Your task to perform on an android device: Is it going to rain today? Image 0: 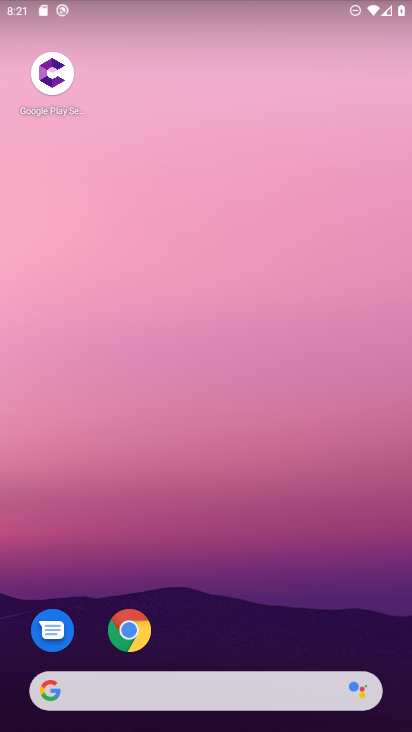
Step 0: click (132, 619)
Your task to perform on an android device: Is it going to rain today? Image 1: 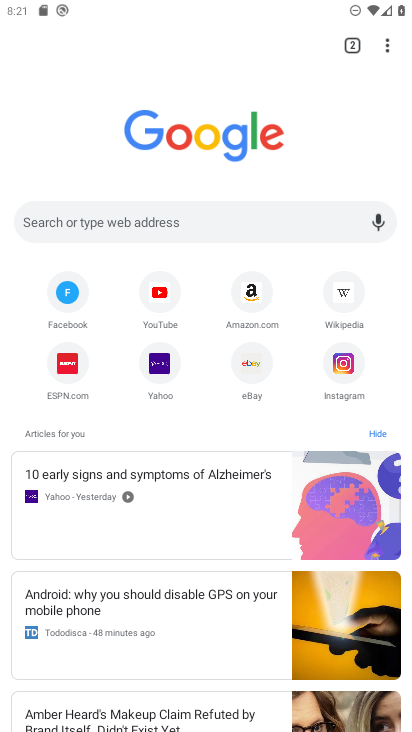
Step 1: click (248, 208)
Your task to perform on an android device: Is it going to rain today? Image 2: 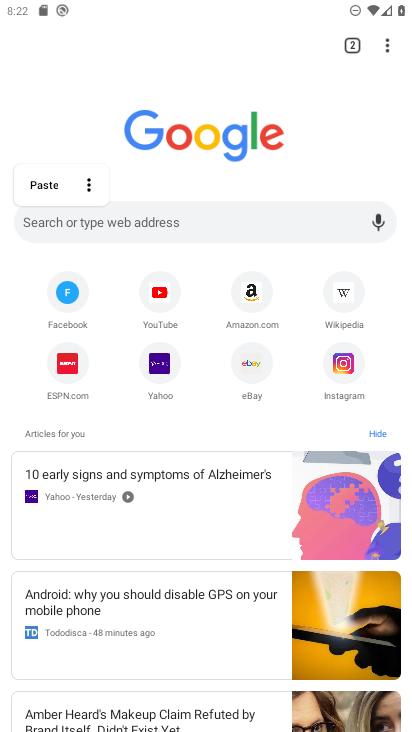
Step 2: type "Is it going to rain today?"
Your task to perform on an android device: Is it going to rain today? Image 3: 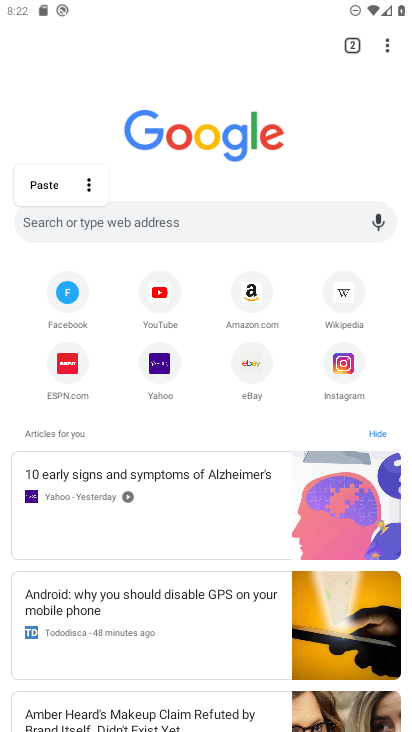
Step 3: click (275, 214)
Your task to perform on an android device: Is it going to rain today? Image 4: 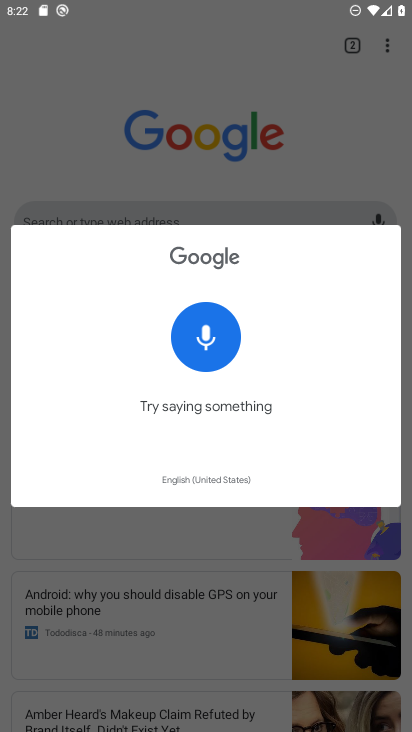
Step 4: click (48, 122)
Your task to perform on an android device: Is it going to rain today? Image 5: 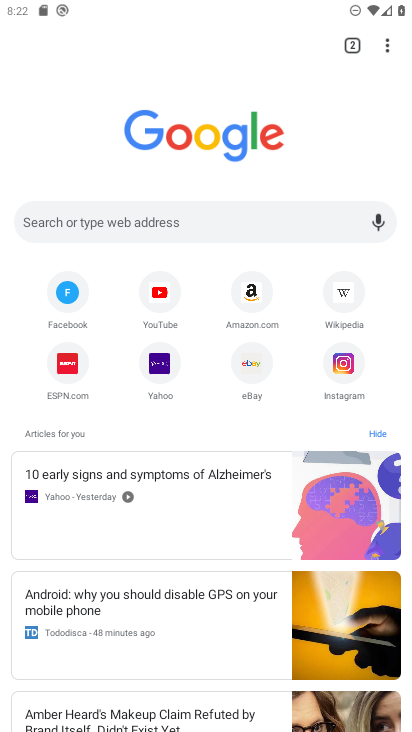
Step 5: click (191, 221)
Your task to perform on an android device: Is it going to rain today? Image 6: 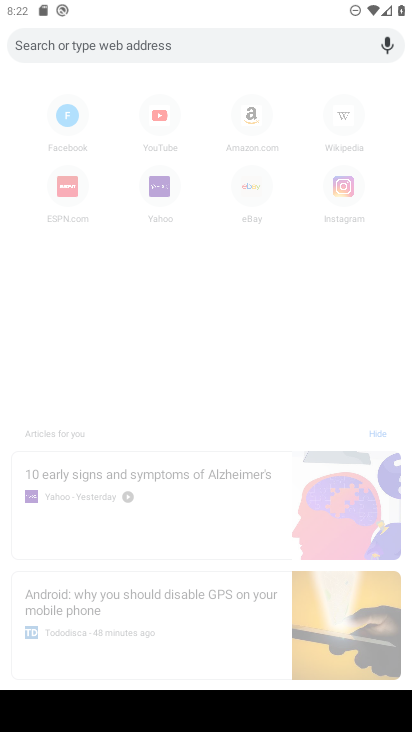
Step 6: type "Is it going to rain today?"
Your task to perform on an android device: Is it going to rain today? Image 7: 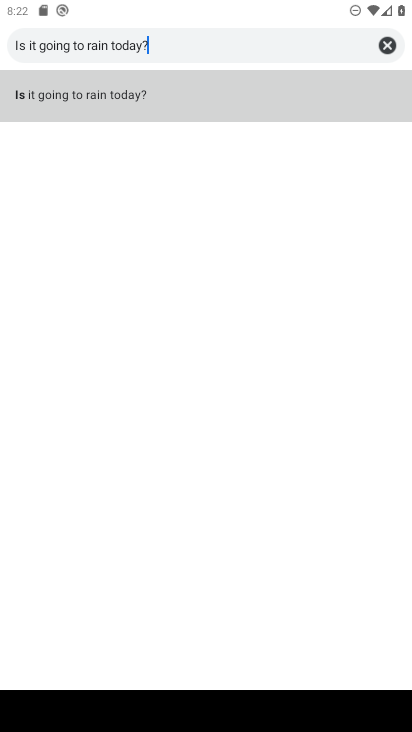
Step 7: click (127, 95)
Your task to perform on an android device: Is it going to rain today? Image 8: 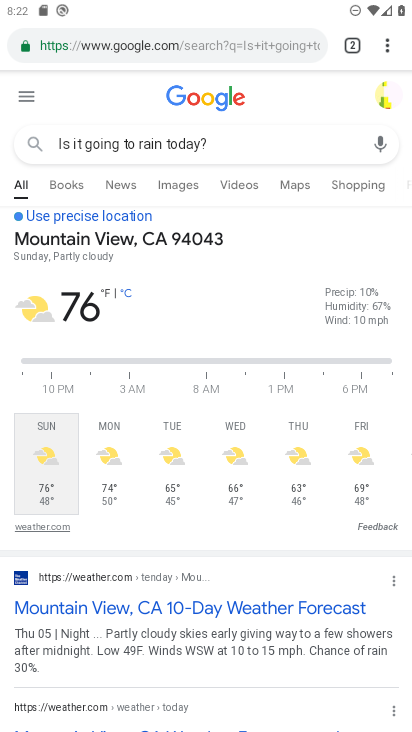
Step 8: task complete